Your task to perform on an android device: see creations saved in the google photos Image 0: 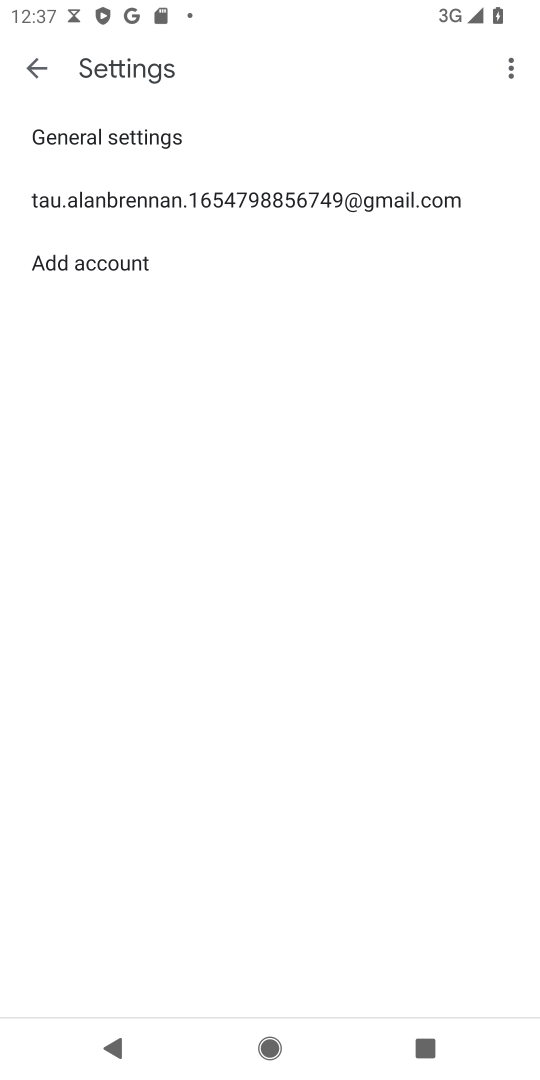
Step 0: press home button
Your task to perform on an android device: see creations saved in the google photos Image 1: 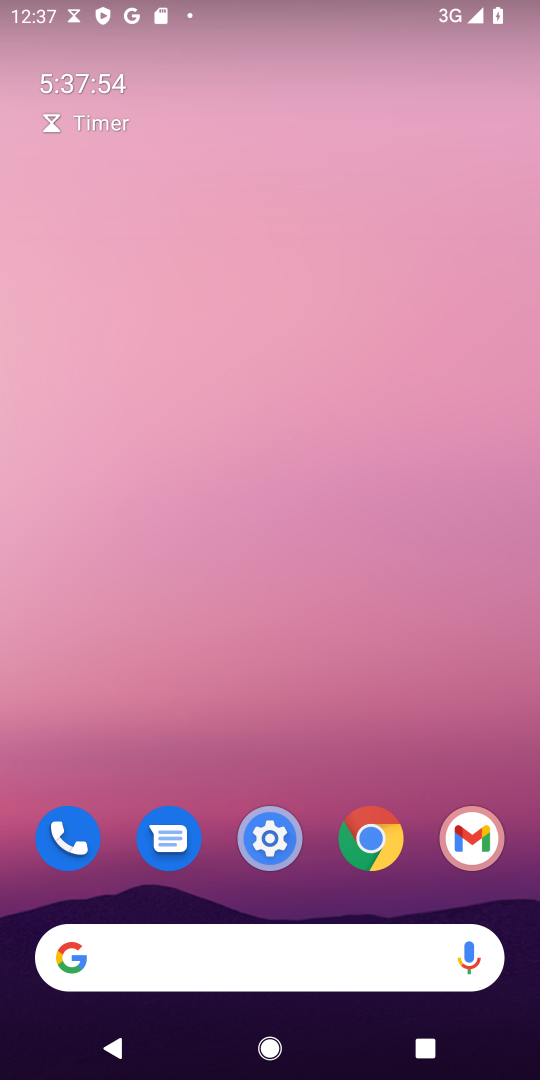
Step 1: drag from (254, 761) to (243, 21)
Your task to perform on an android device: see creations saved in the google photos Image 2: 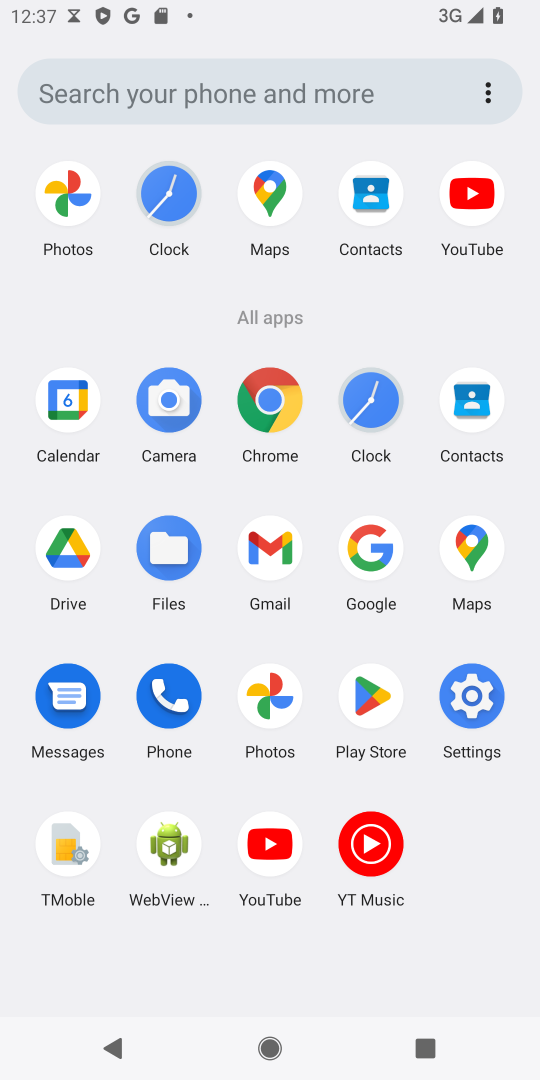
Step 2: click (280, 692)
Your task to perform on an android device: see creations saved in the google photos Image 3: 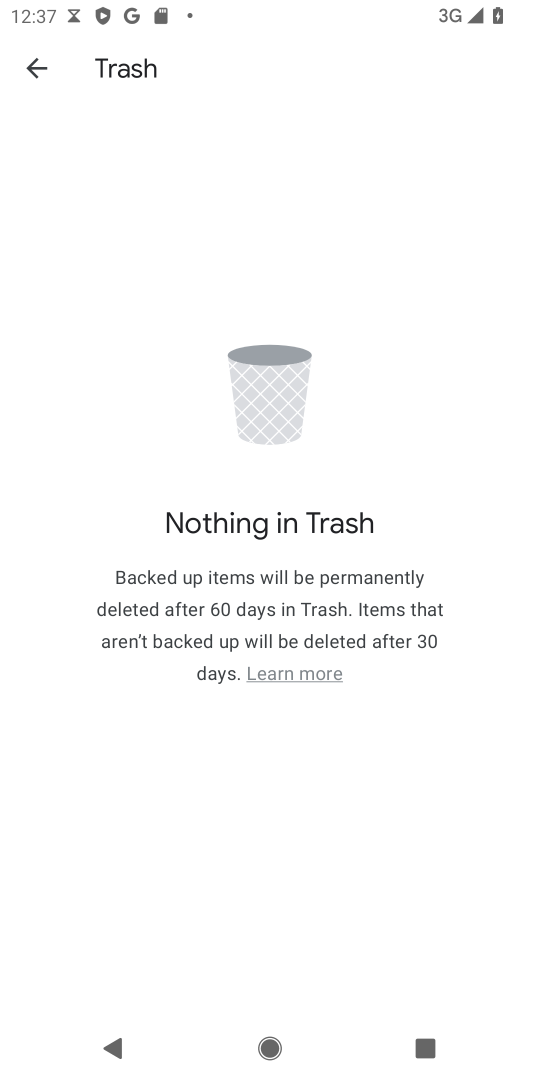
Step 3: click (31, 63)
Your task to perform on an android device: see creations saved in the google photos Image 4: 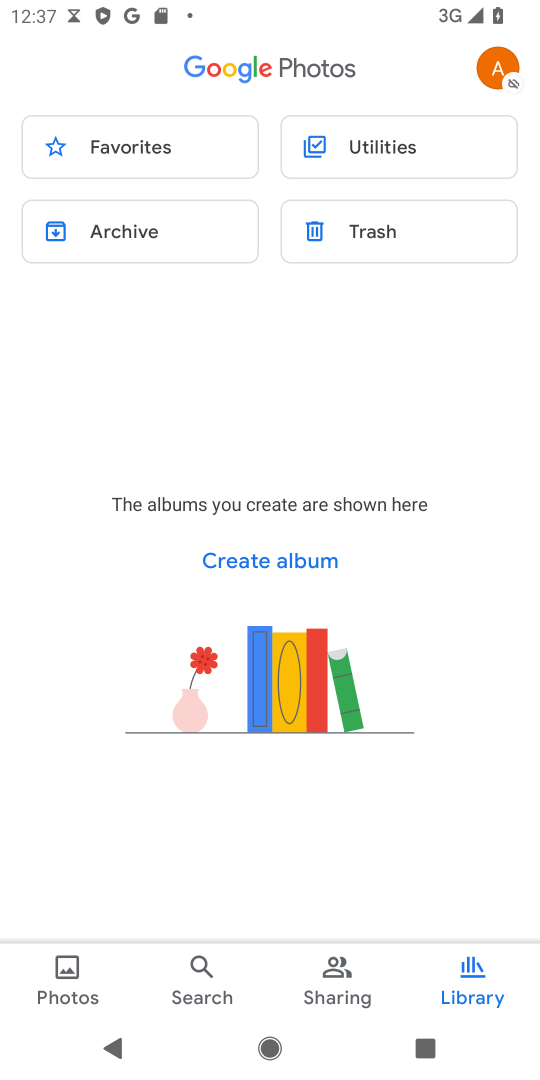
Step 4: click (186, 978)
Your task to perform on an android device: see creations saved in the google photos Image 5: 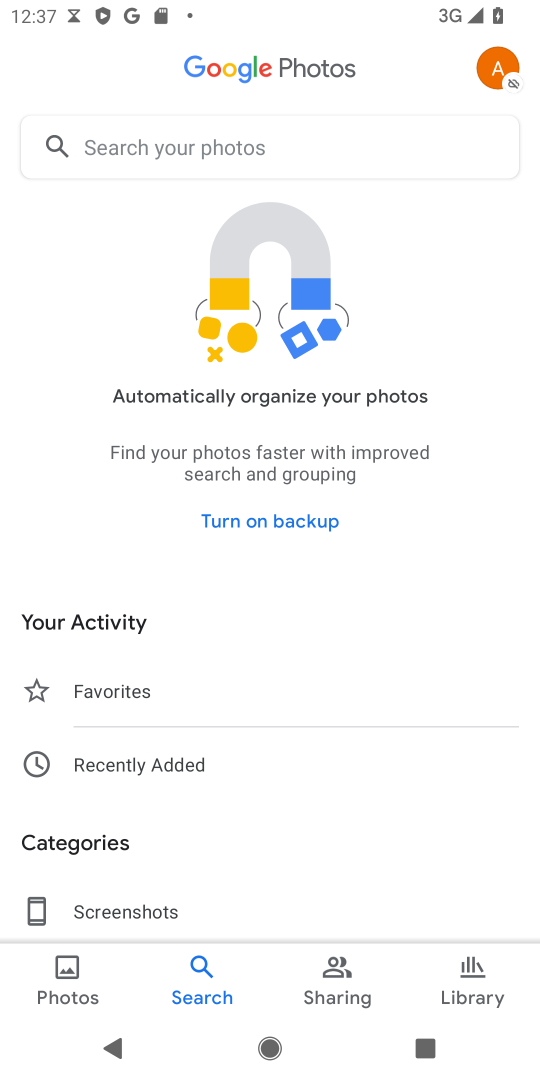
Step 5: drag from (218, 895) to (167, 103)
Your task to perform on an android device: see creations saved in the google photos Image 6: 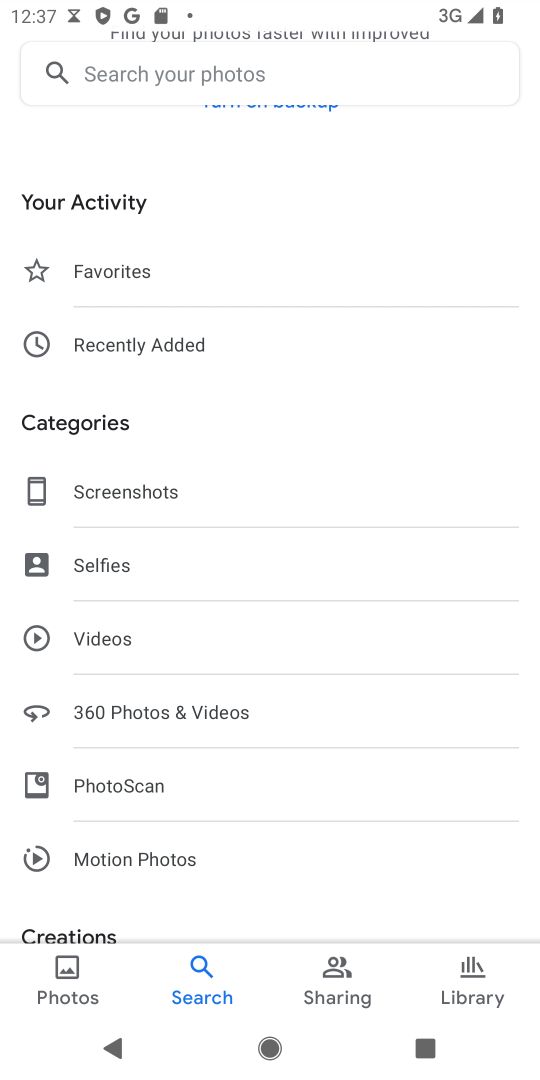
Step 6: drag from (153, 567) to (121, 147)
Your task to perform on an android device: see creations saved in the google photos Image 7: 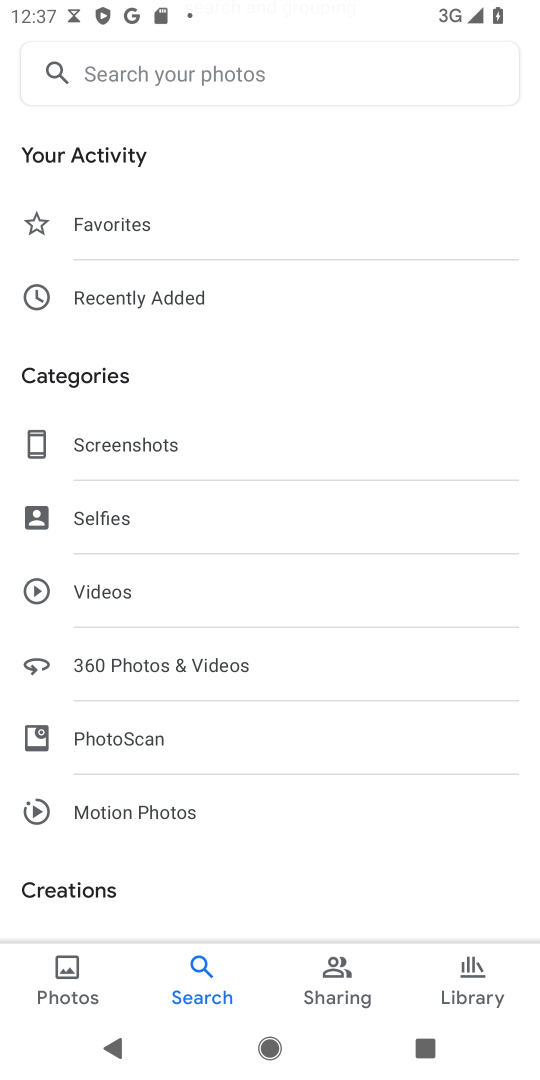
Step 7: drag from (190, 817) to (166, 480)
Your task to perform on an android device: see creations saved in the google photos Image 8: 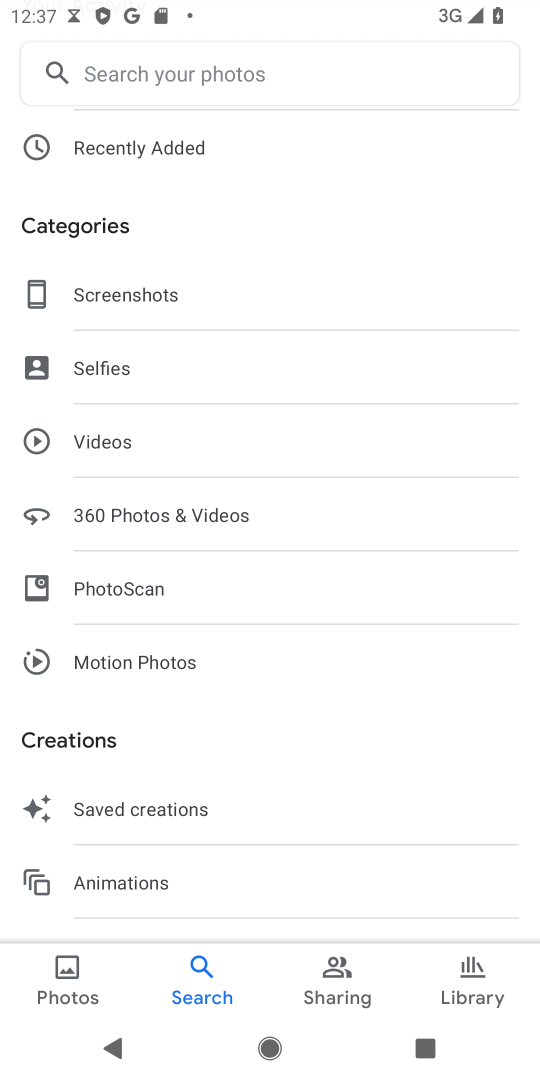
Step 8: click (170, 796)
Your task to perform on an android device: see creations saved in the google photos Image 9: 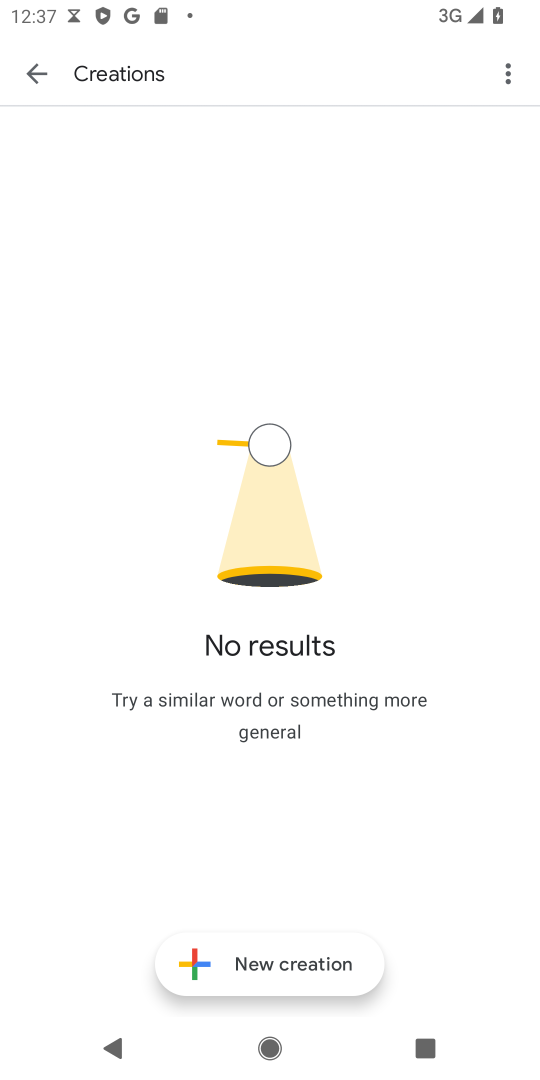
Step 9: task complete